Your task to perform on an android device: Open Google Chrome Image 0: 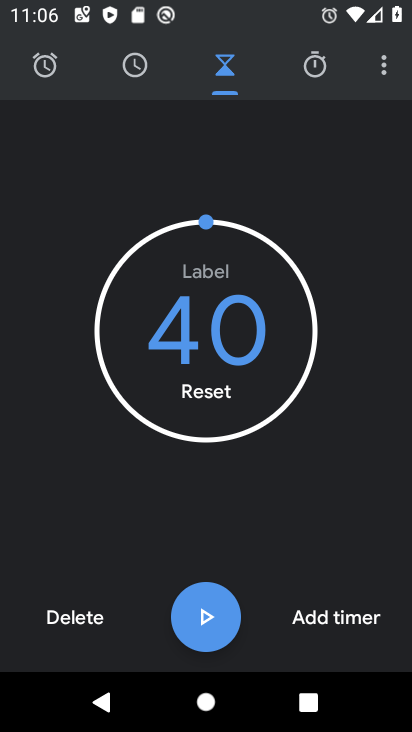
Step 0: press home button
Your task to perform on an android device: Open Google Chrome Image 1: 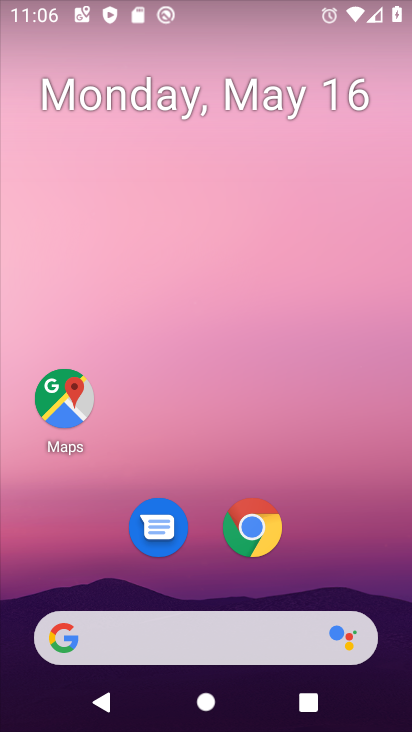
Step 1: click (252, 527)
Your task to perform on an android device: Open Google Chrome Image 2: 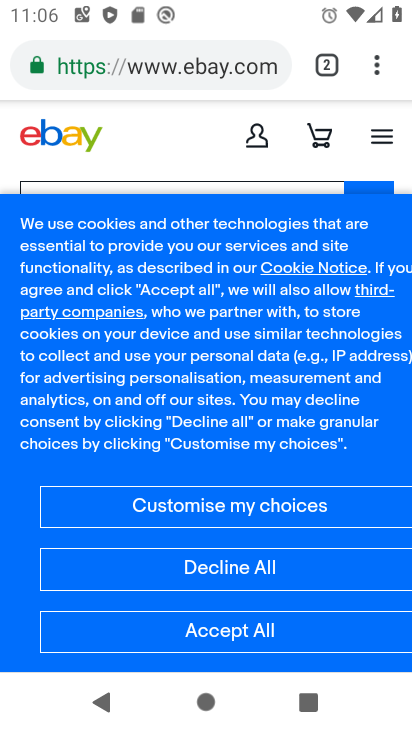
Step 2: task complete